Your task to perform on an android device: change the clock display to show seconds Image 0: 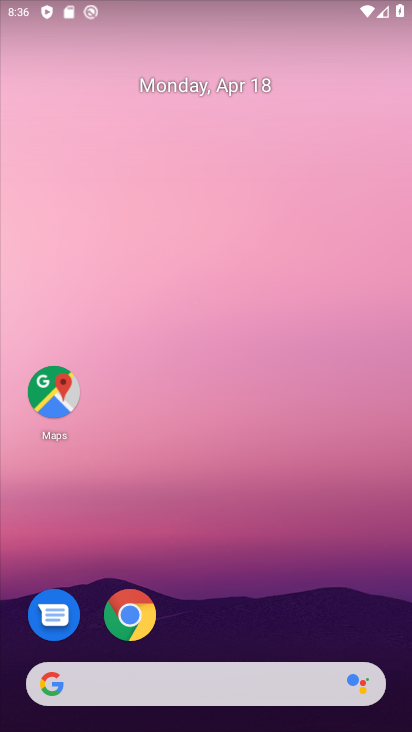
Step 0: drag from (380, 528) to (383, 189)
Your task to perform on an android device: change the clock display to show seconds Image 1: 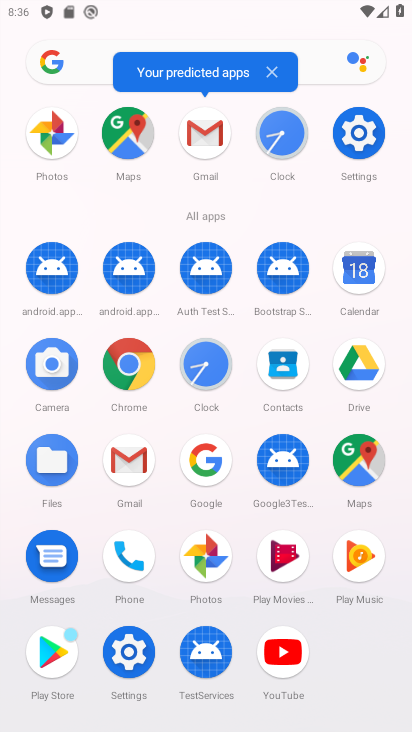
Step 1: click (286, 148)
Your task to perform on an android device: change the clock display to show seconds Image 2: 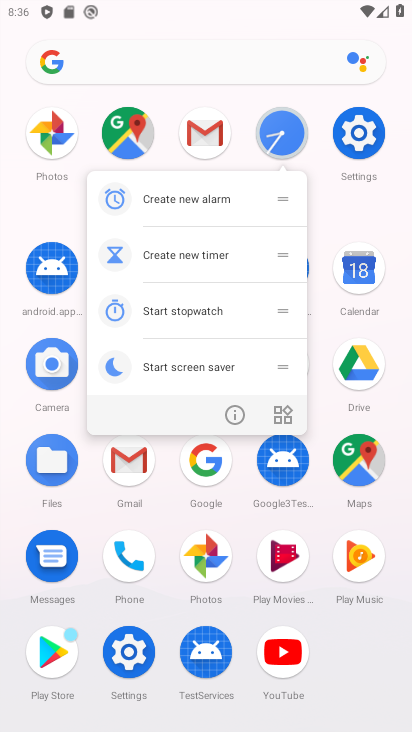
Step 2: click (288, 151)
Your task to perform on an android device: change the clock display to show seconds Image 3: 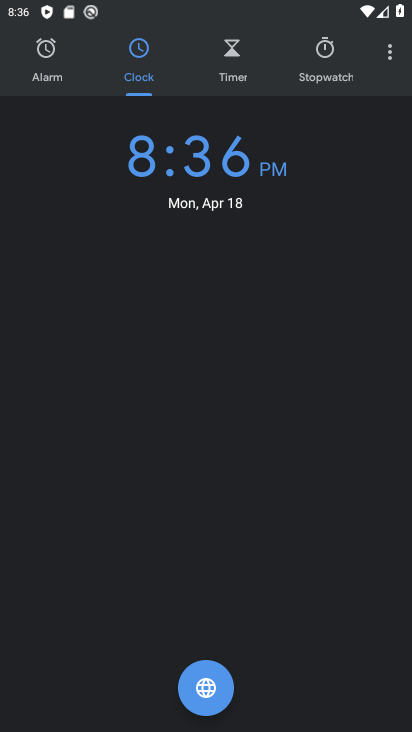
Step 3: click (389, 52)
Your task to perform on an android device: change the clock display to show seconds Image 4: 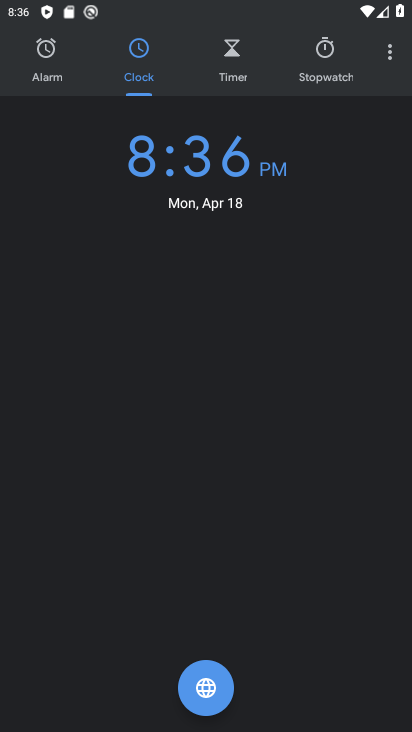
Step 4: click (393, 60)
Your task to perform on an android device: change the clock display to show seconds Image 5: 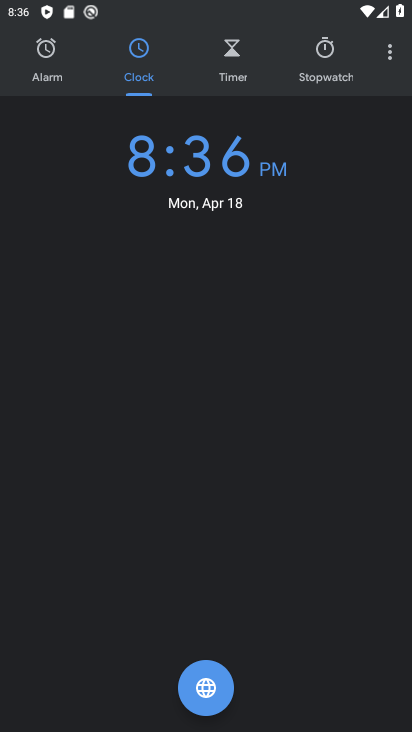
Step 5: click (388, 59)
Your task to perform on an android device: change the clock display to show seconds Image 6: 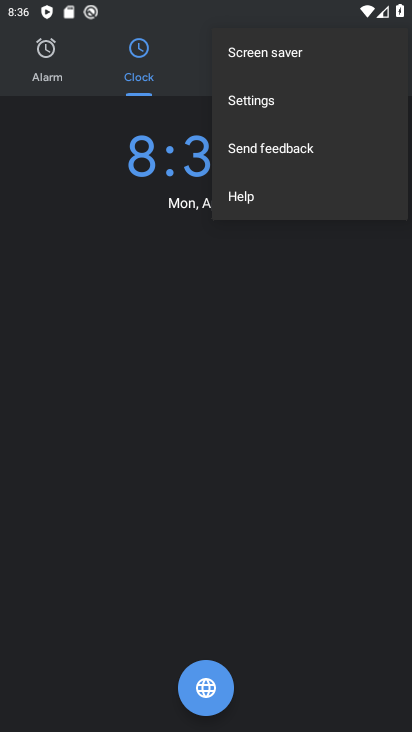
Step 6: click (268, 104)
Your task to perform on an android device: change the clock display to show seconds Image 7: 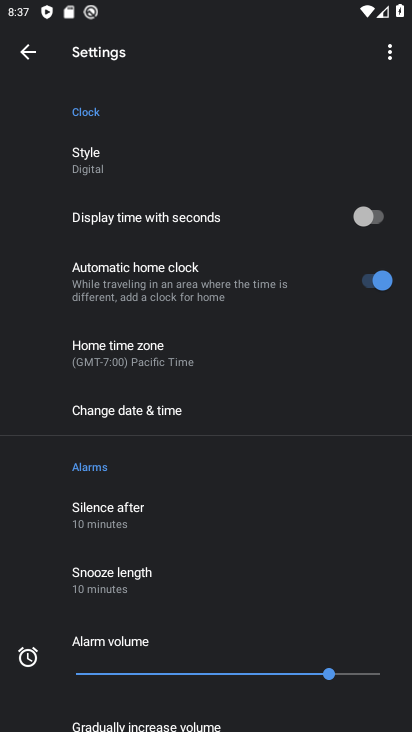
Step 7: click (375, 212)
Your task to perform on an android device: change the clock display to show seconds Image 8: 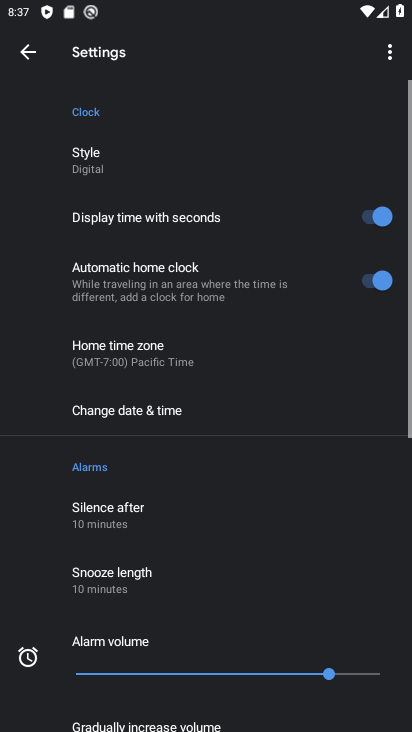
Step 8: task complete